Your task to perform on an android device: open chrome and create a bookmark for the current page Image 0: 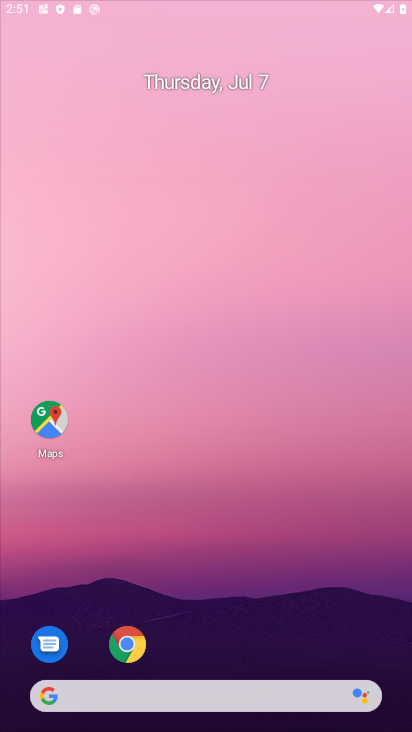
Step 0: press home button
Your task to perform on an android device: open chrome and create a bookmark for the current page Image 1: 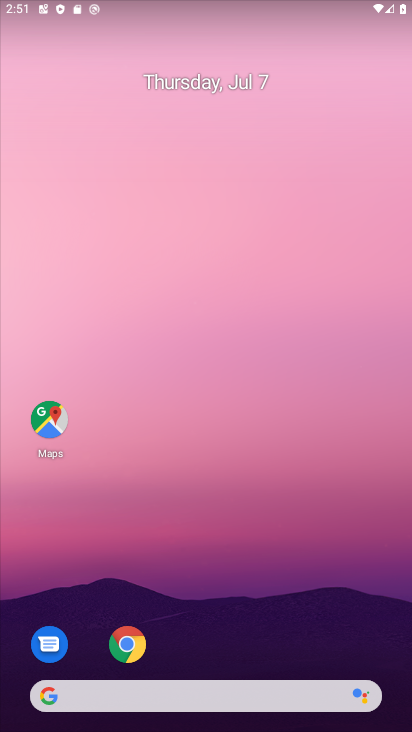
Step 1: click (131, 640)
Your task to perform on an android device: open chrome and create a bookmark for the current page Image 2: 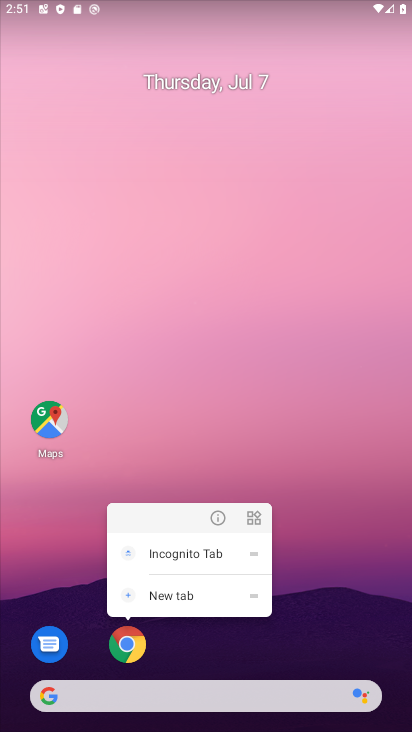
Step 2: click (246, 643)
Your task to perform on an android device: open chrome and create a bookmark for the current page Image 3: 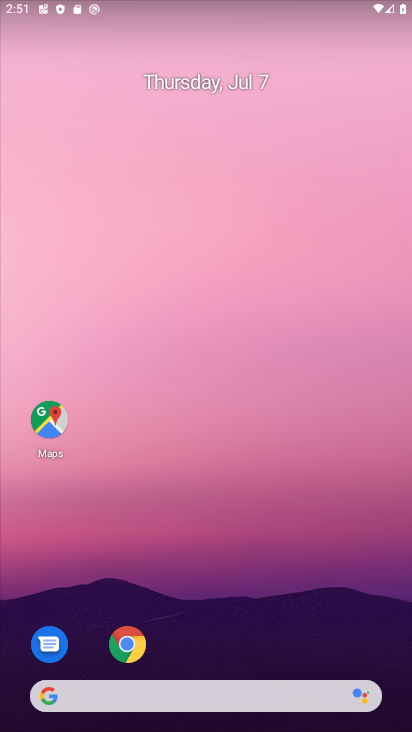
Step 3: drag from (266, 647) to (262, 0)
Your task to perform on an android device: open chrome and create a bookmark for the current page Image 4: 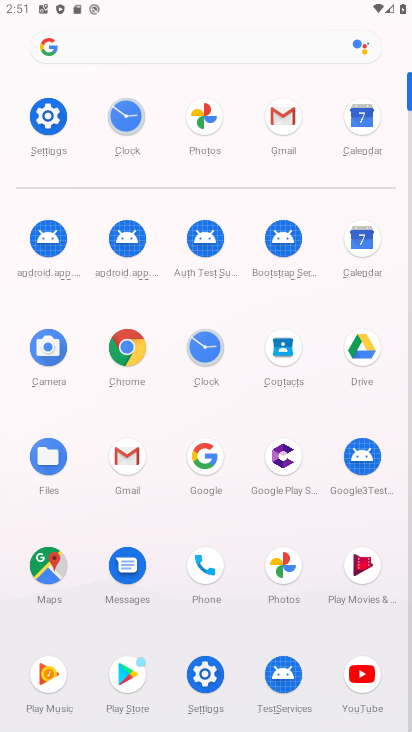
Step 4: click (124, 349)
Your task to perform on an android device: open chrome and create a bookmark for the current page Image 5: 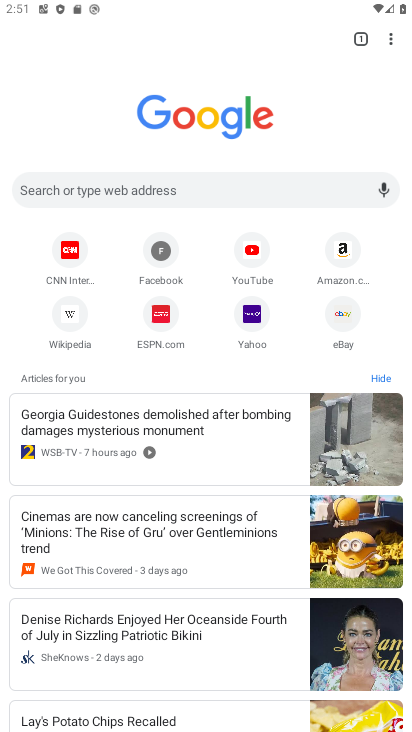
Step 5: drag from (392, 38) to (271, 41)
Your task to perform on an android device: open chrome and create a bookmark for the current page Image 6: 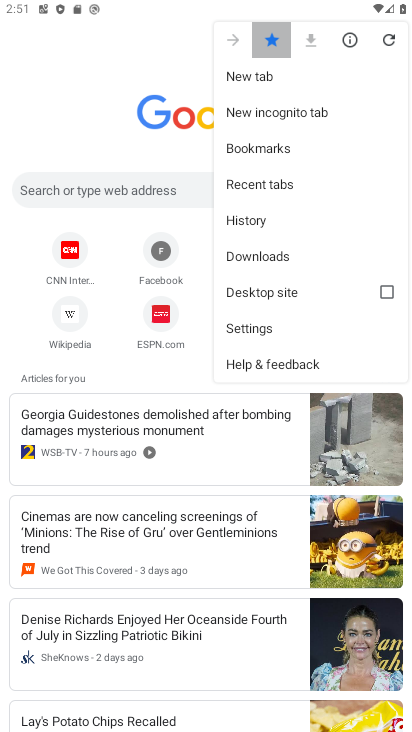
Step 6: click (271, 41)
Your task to perform on an android device: open chrome and create a bookmark for the current page Image 7: 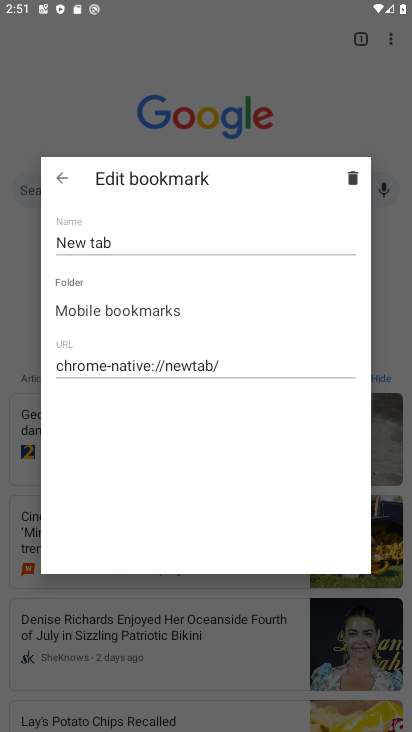
Step 7: click (110, 63)
Your task to perform on an android device: open chrome and create a bookmark for the current page Image 8: 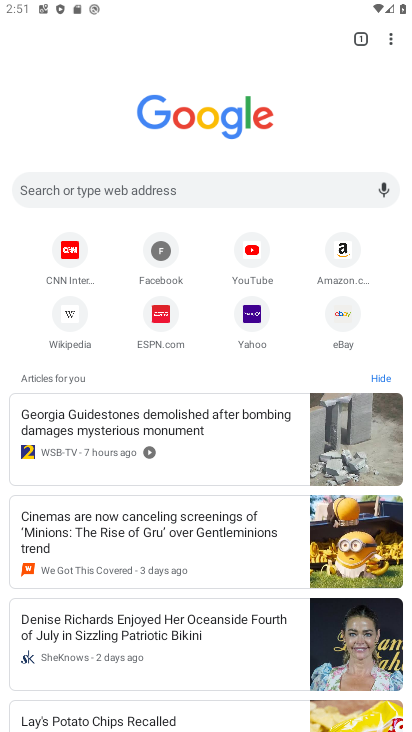
Step 8: task complete